Your task to perform on an android device: install app "DoorDash - Dasher" Image 0: 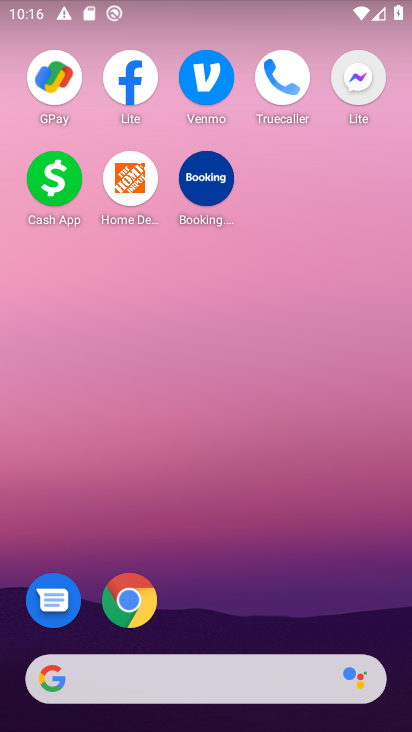
Step 0: drag from (191, 549) to (242, 78)
Your task to perform on an android device: install app "DoorDash - Dasher" Image 1: 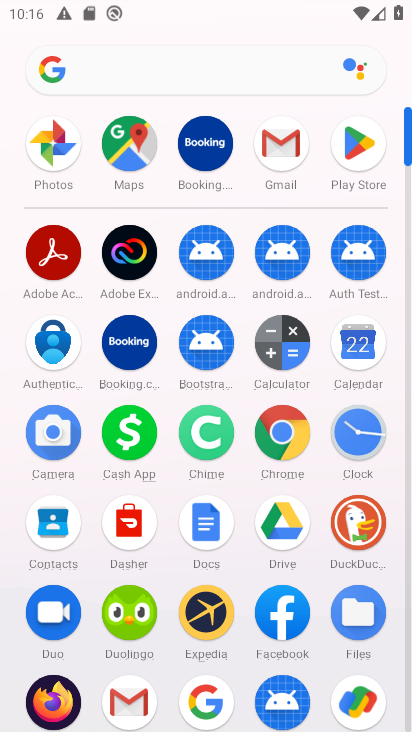
Step 1: click (354, 144)
Your task to perform on an android device: install app "DoorDash - Dasher" Image 2: 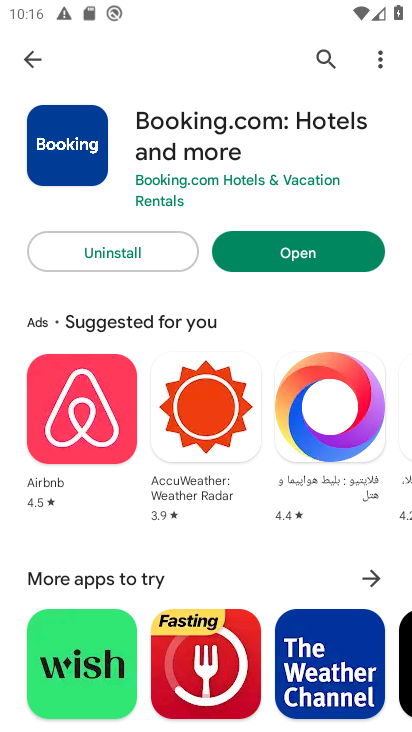
Step 2: click (324, 62)
Your task to perform on an android device: install app "DoorDash - Dasher" Image 3: 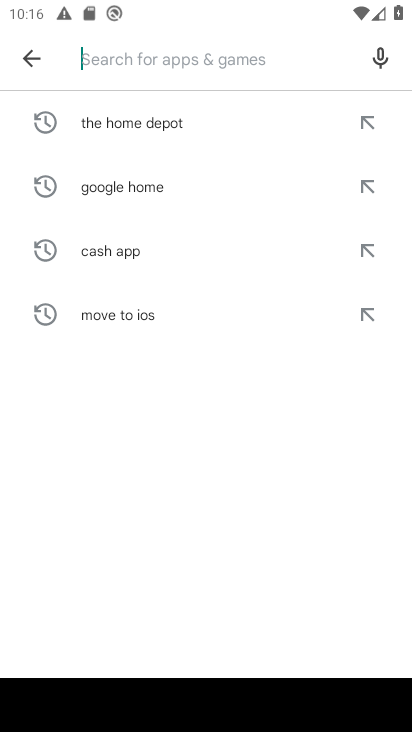
Step 3: type "DoorDash - Dasher"
Your task to perform on an android device: install app "DoorDash - Dasher" Image 4: 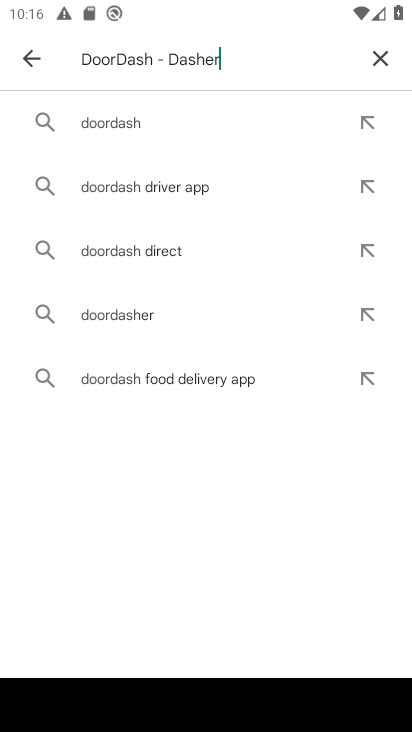
Step 4: type ""
Your task to perform on an android device: install app "DoorDash - Dasher" Image 5: 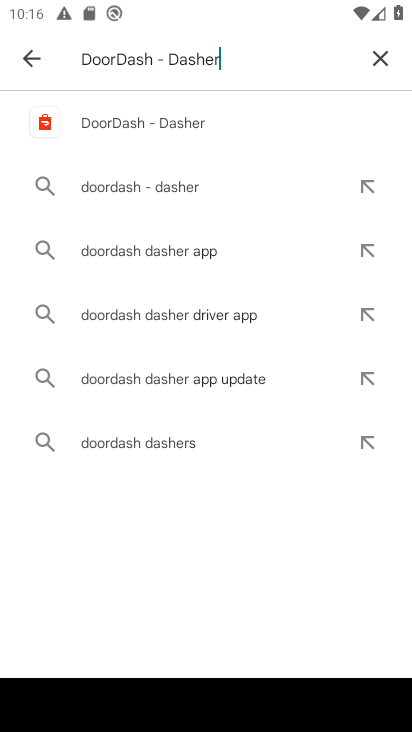
Step 5: click (208, 104)
Your task to perform on an android device: install app "DoorDash - Dasher" Image 6: 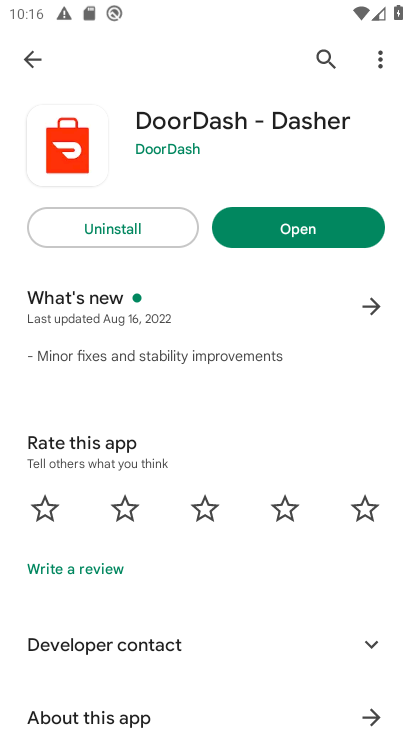
Step 6: task complete